Your task to perform on an android device: Open network settings Image 0: 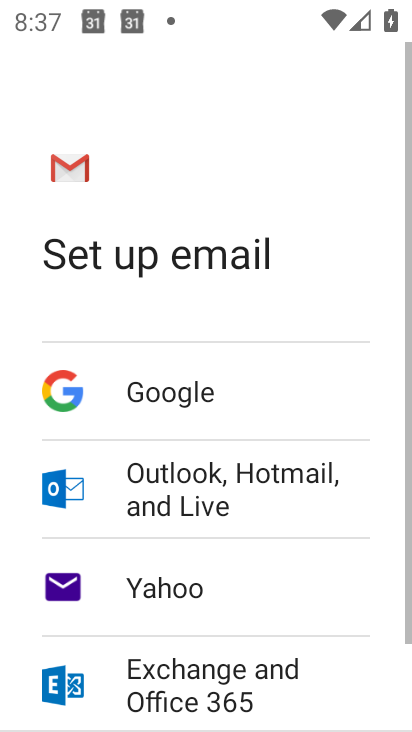
Step 0: press home button
Your task to perform on an android device: Open network settings Image 1: 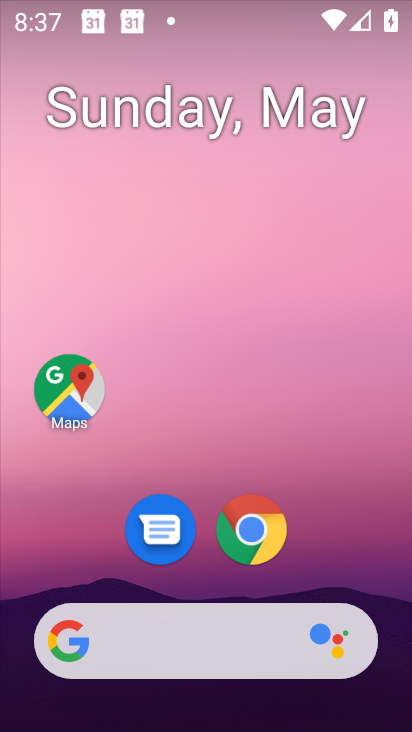
Step 1: drag from (358, 559) to (306, 12)
Your task to perform on an android device: Open network settings Image 2: 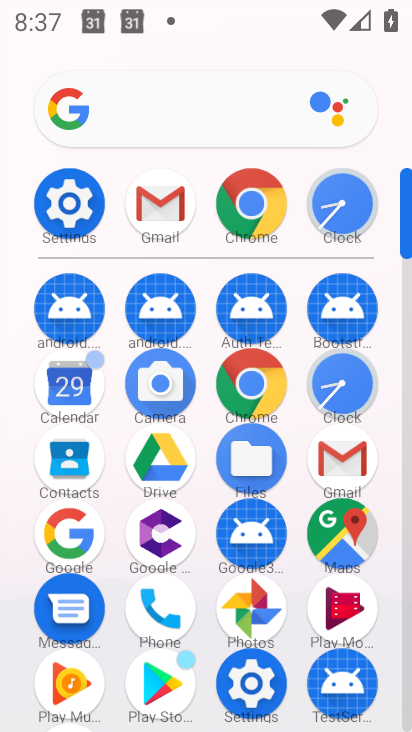
Step 2: click (81, 215)
Your task to perform on an android device: Open network settings Image 3: 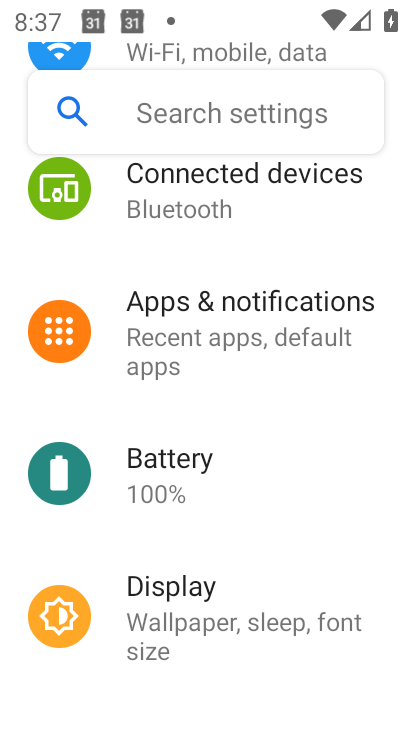
Step 3: click (151, 50)
Your task to perform on an android device: Open network settings Image 4: 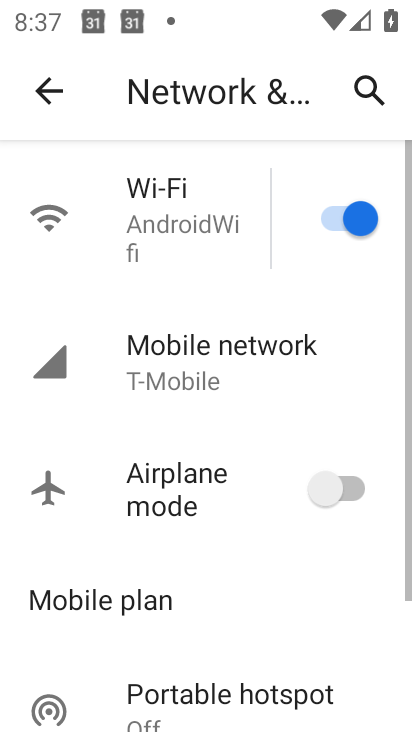
Step 4: task complete